Your task to perform on an android device: change timer sound Image 0: 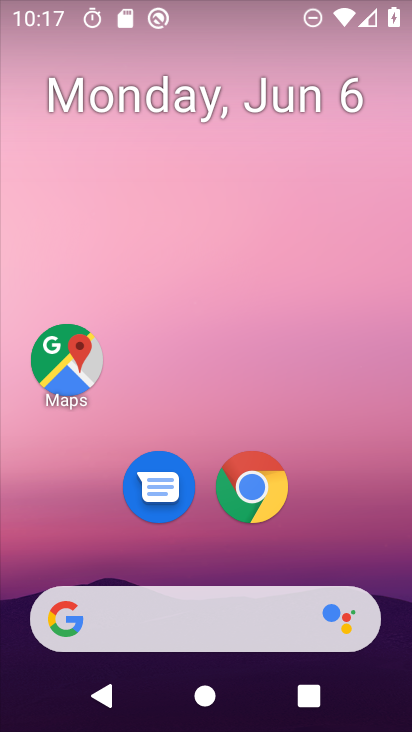
Step 0: click (379, 597)
Your task to perform on an android device: change timer sound Image 1: 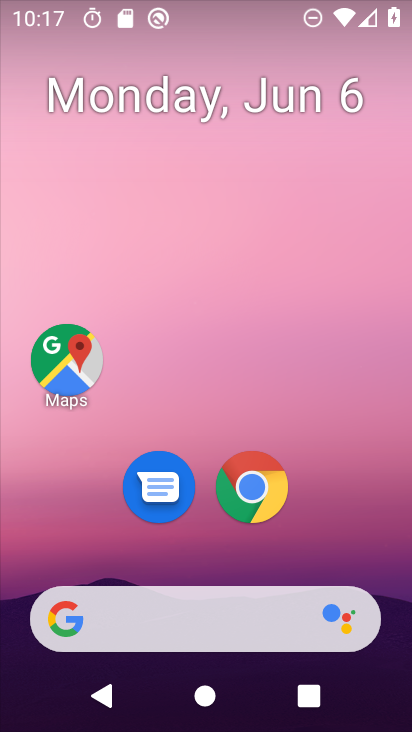
Step 1: drag from (397, 615) to (377, 344)
Your task to perform on an android device: change timer sound Image 2: 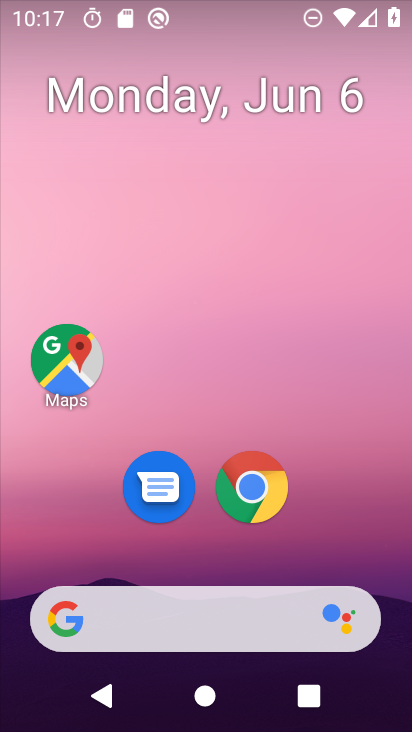
Step 2: drag from (397, 626) to (275, 210)
Your task to perform on an android device: change timer sound Image 3: 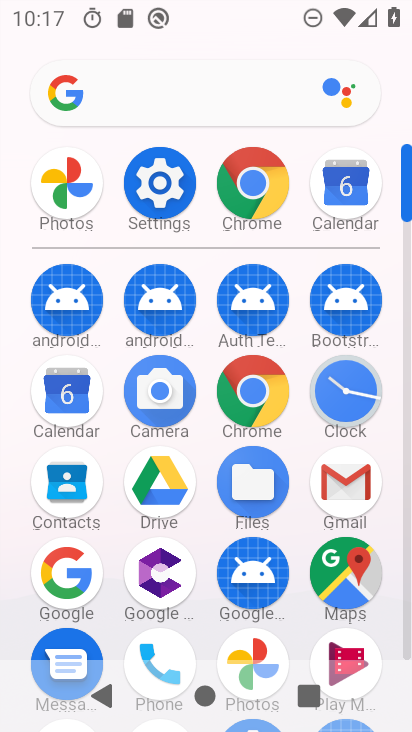
Step 3: click (346, 395)
Your task to perform on an android device: change timer sound Image 4: 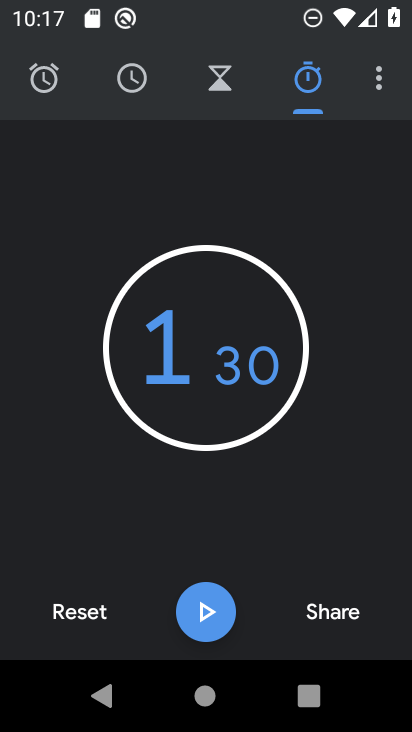
Step 4: click (374, 74)
Your task to perform on an android device: change timer sound Image 5: 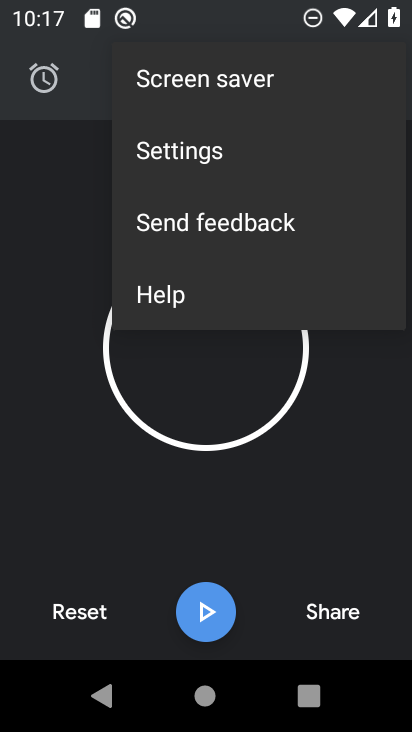
Step 5: click (266, 149)
Your task to perform on an android device: change timer sound Image 6: 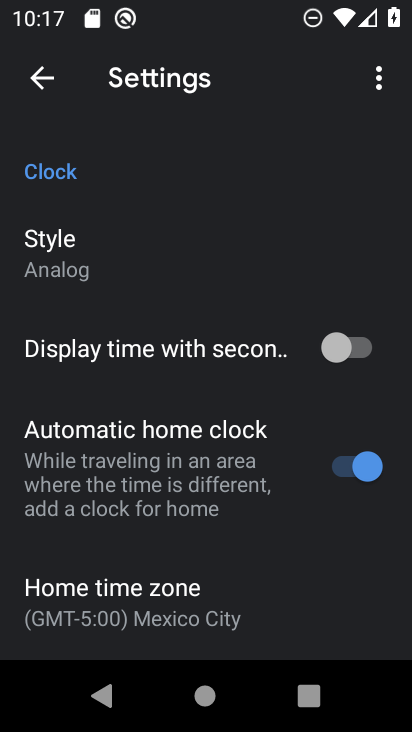
Step 6: drag from (251, 570) to (217, 89)
Your task to perform on an android device: change timer sound Image 7: 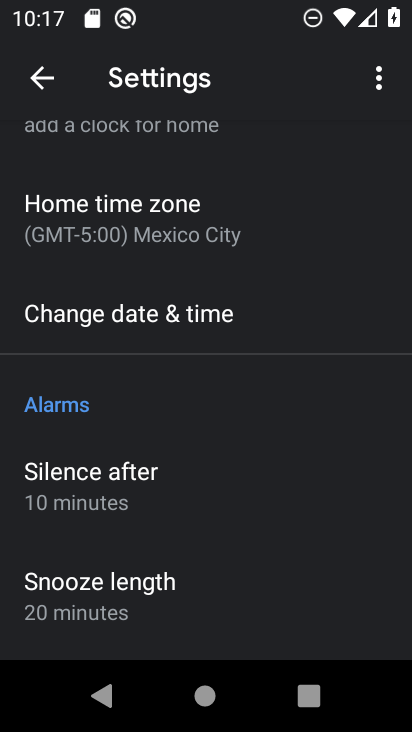
Step 7: drag from (206, 607) to (222, 101)
Your task to perform on an android device: change timer sound Image 8: 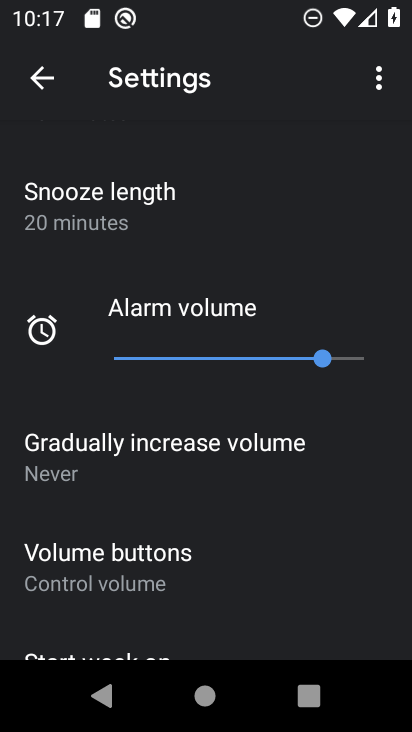
Step 8: drag from (174, 591) to (234, 130)
Your task to perform on an android device: change timer sound Image 9: 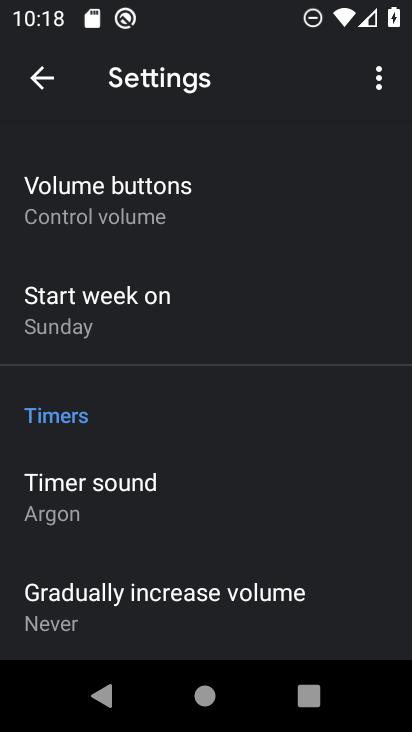
Step 9: click (152, 504)
Your task to perform on an android device: change timer sound Image 10: 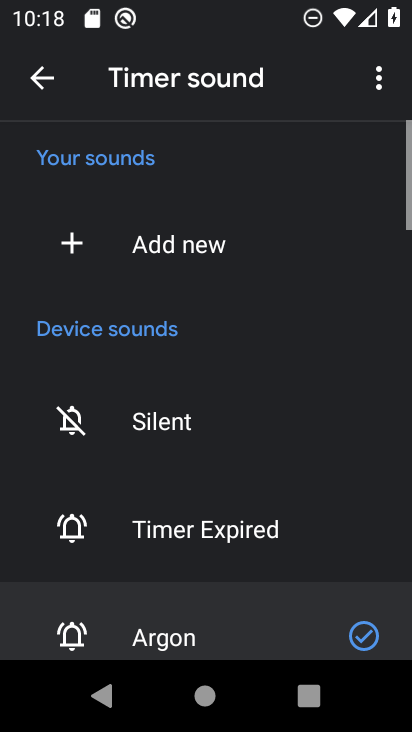
Step 10: drag from (188, 601) to (233, 163)
Your task to perform on an android device: change timer sound Image 11: 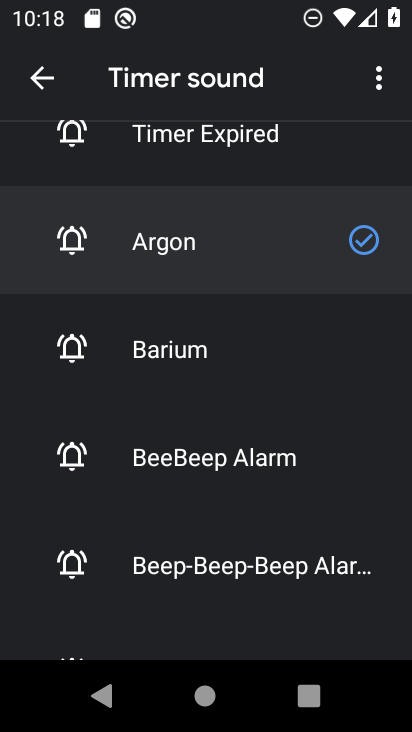
Step 11: click (212, 461)
Your task to perform on an android device: change timer sound Image 12: 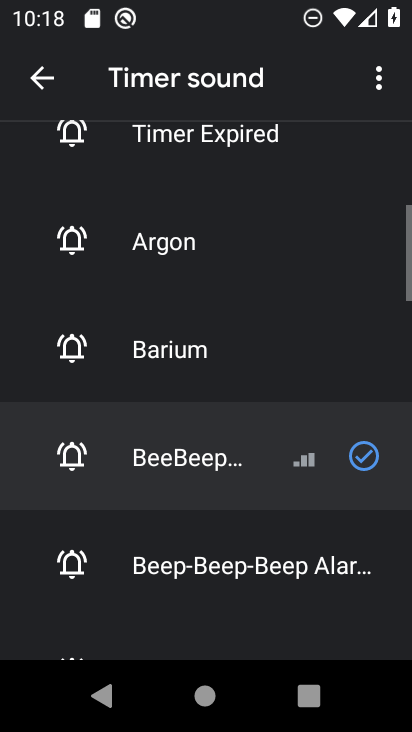
Step 12: task complete